Your task to perform on an android device: star an email in the gmail app Image 0: 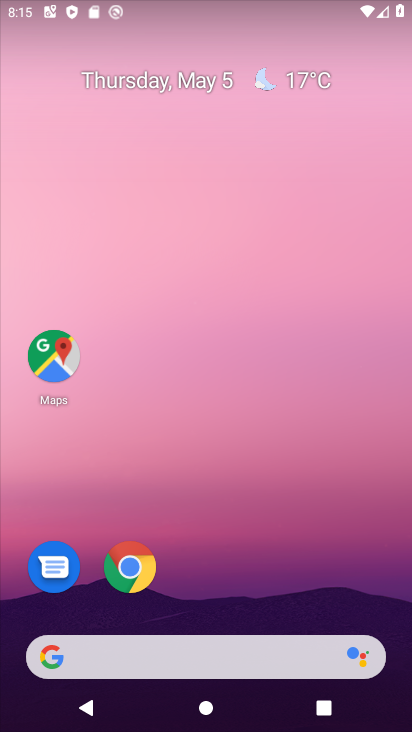
Step 0: drag from (239, 567) to (216, 57)
Your task to perform on an android device: star an email in the gmail app Image 1: 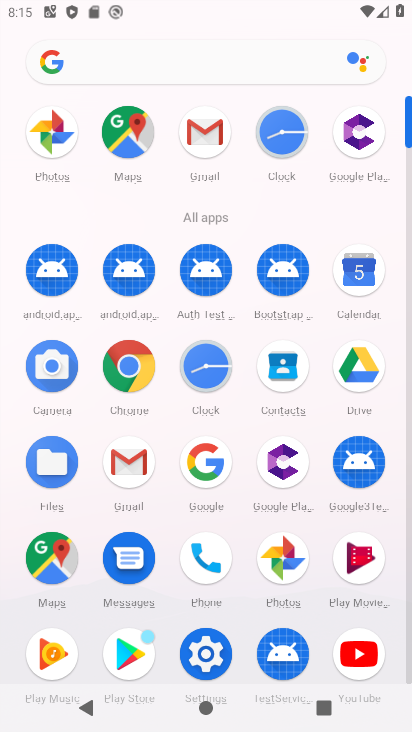
Step 1: click (203, 139)
Your task to perform on an android device: star an email in the gmail app Image 2: 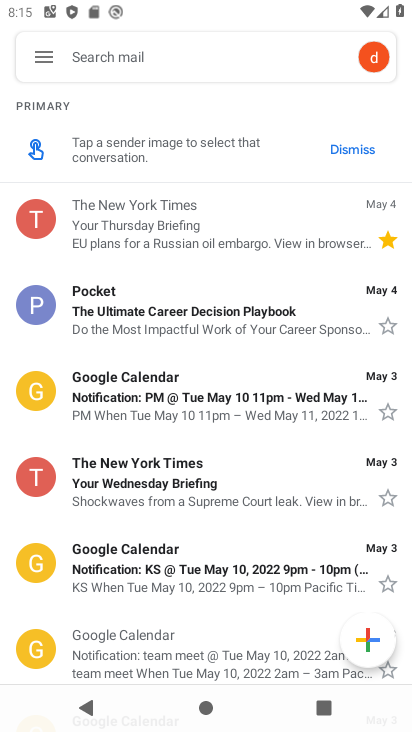
Step 2: click (187, 303)
Your task to perform on an android device: star an email in the gmail app Image 3: 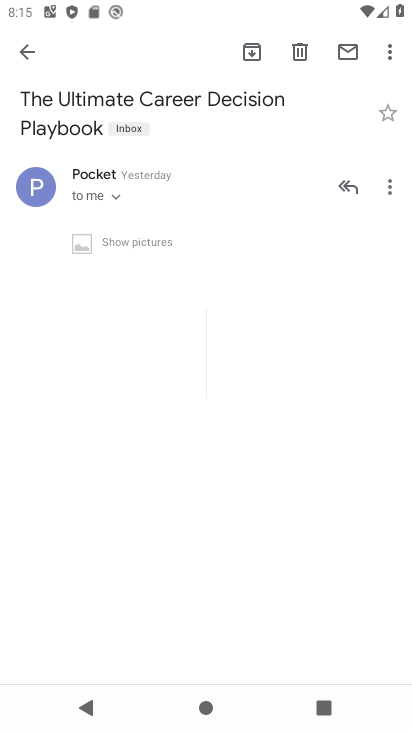
Step 3: click (389, 108)
Your task to perform on an android device: star an email in the gmail app Image 4: 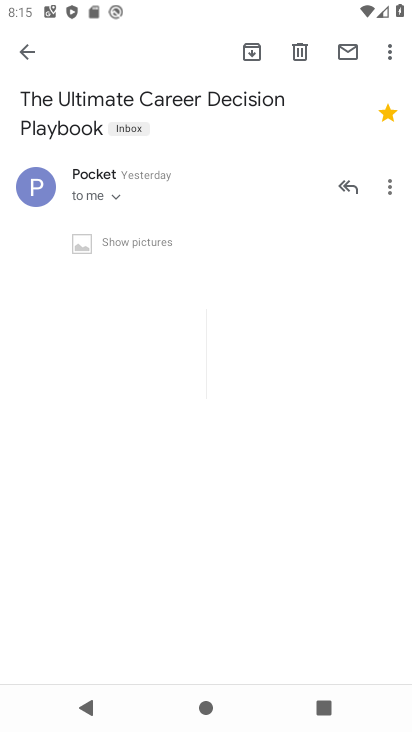
Step 4: click (24, 46)
Your task to perform on an android device: star an email in the gmail app Image 5: 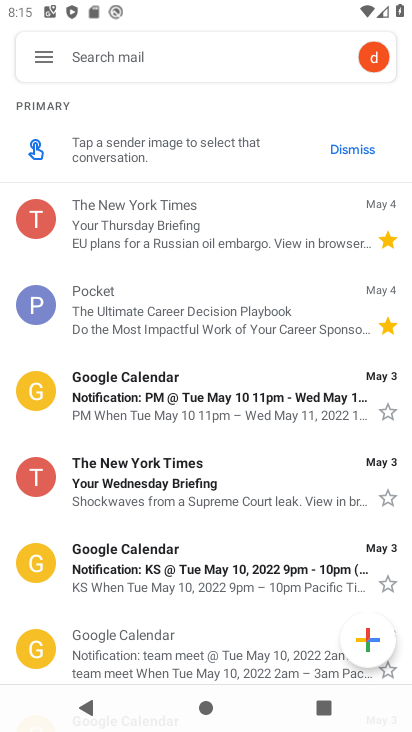
Step 5: task complete